Your task to perform on an android device: open the mobile data screen to see how much data has been used Image 0: 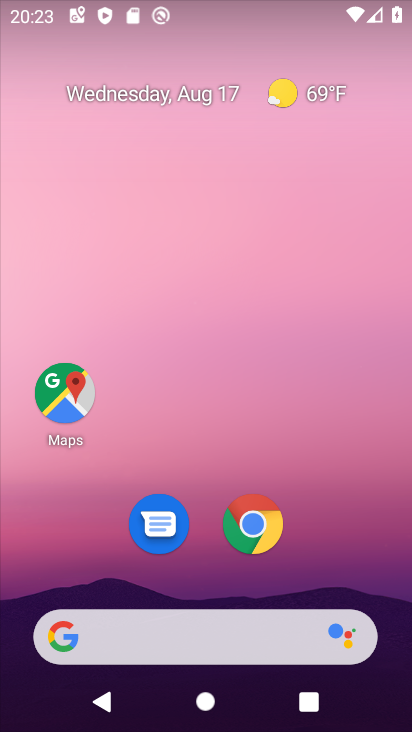
Step 0: drag from (343, 462) to (326, 7)
Your task to perform on an android device: open the mobile data screen to see how much data has been used Image 1: 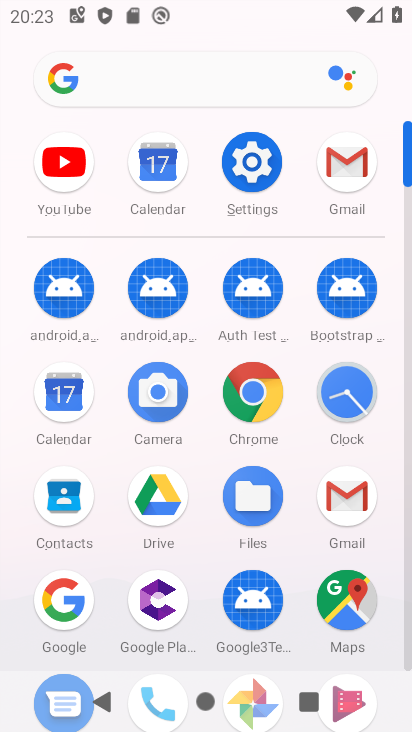
Step 1: click (250, 166)
Your task to perform on an android device: open the mobile data screen to see how much data has been used Image 2: 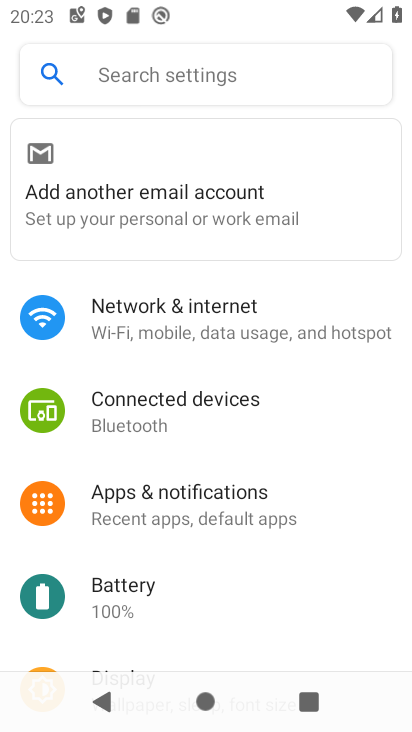
Step 2: click (237, 324)
Your task to perform on an android device: open the mobile data screen to see how much data has been used Image 3: 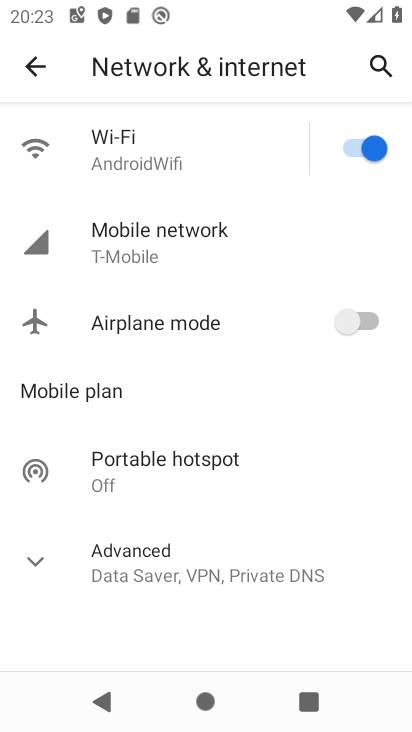
Step 3: click (184, 235)
Your task to perform on an android device: open the mobile data screen to see how much data has been used Image 4: 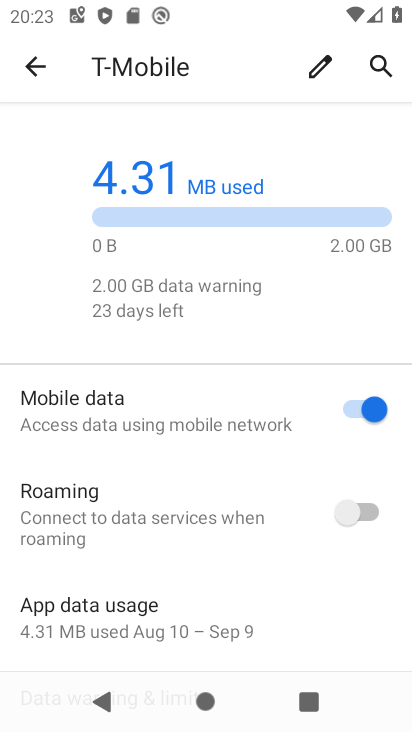
Step 4: task complete